Your task to perform on an android device: Open calendar and show me the third week of next month Image 0: 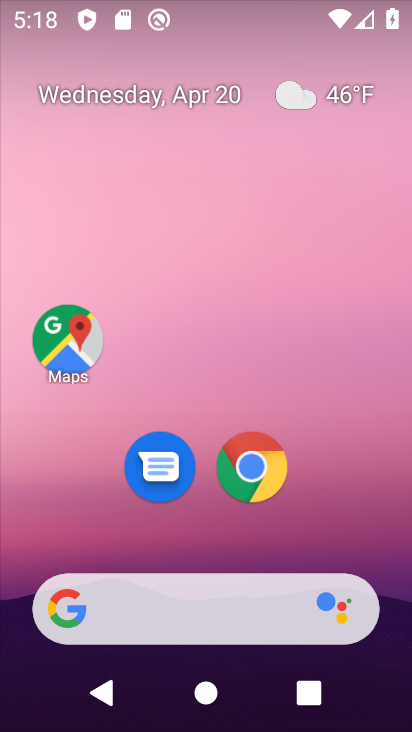
Step 0: drag from (237, 89) to (257, 34)
Your task to perform on an android device: Open calendar and show me the third week of next month Image 1: 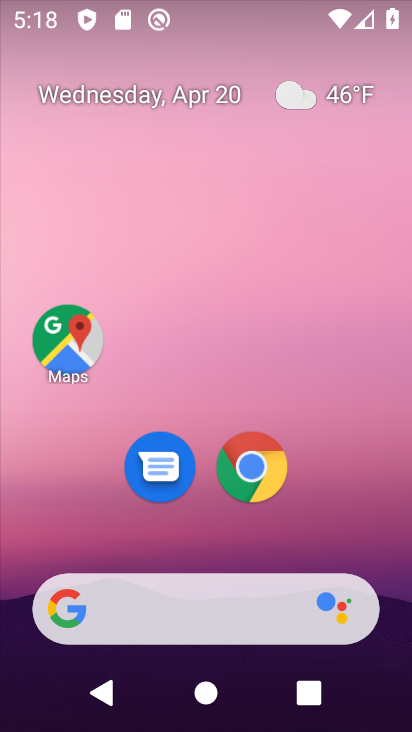
Step 1: drag from (198, 543) to (280, 2)
Your task to perform on an android device: Open calendar and show me the third week of next month Image 2: 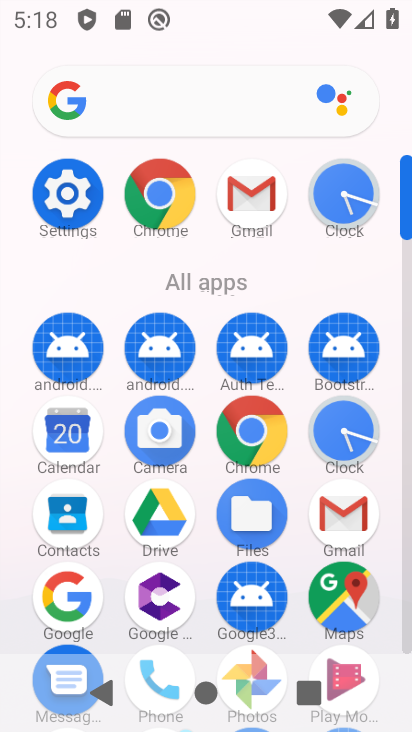
Step 2: click (274, 17)
Your task to perform on an android device: Open calendar and show me the third week of next month Image 3: 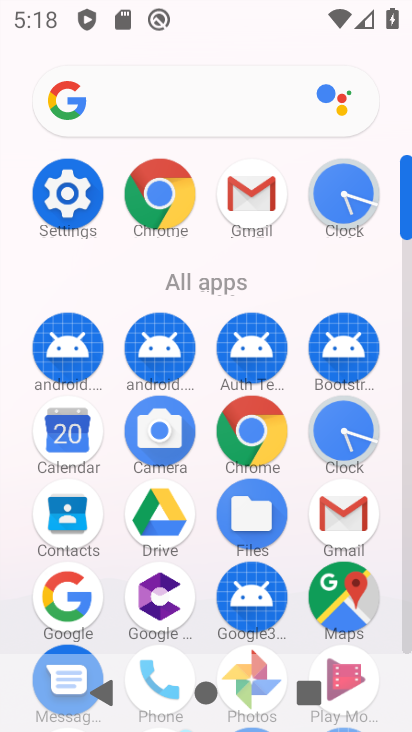
Step 3: click (56, 451)
Your task to perform on an android device: Open calendar and show me the third week of next month Image 4: 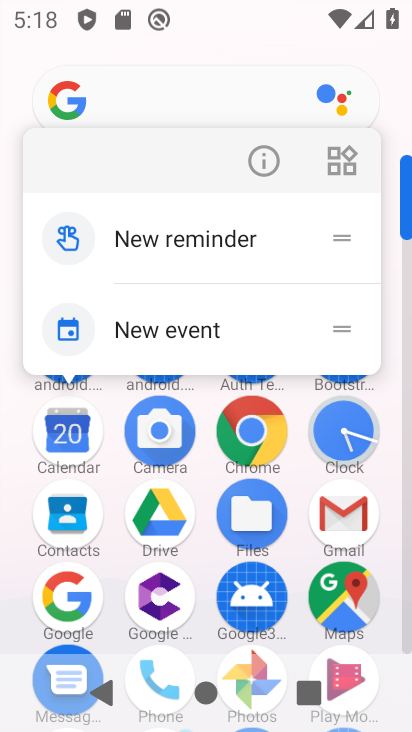
Step 4: click (57, 449)
Your task to perform on an android device: Open calendar and show me the third week of next month Image 5: 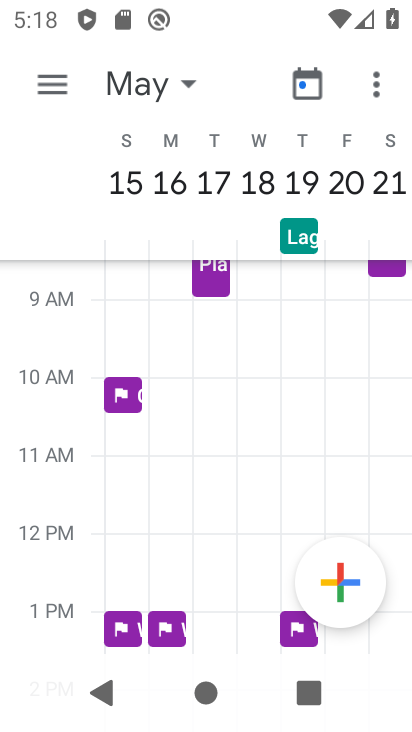
Step 5: task complete